Your task to perform on an android device: see sites visited before in the chrome app Image 0: 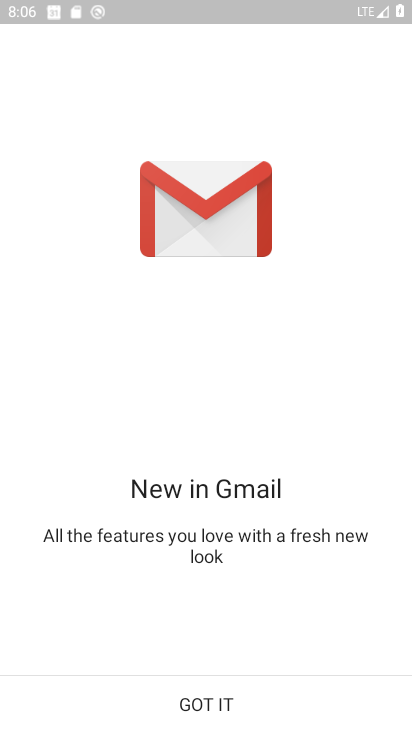
Step 0: press home button
Your task to perform on an android device: see sites visited before in the chrome app Image 1: 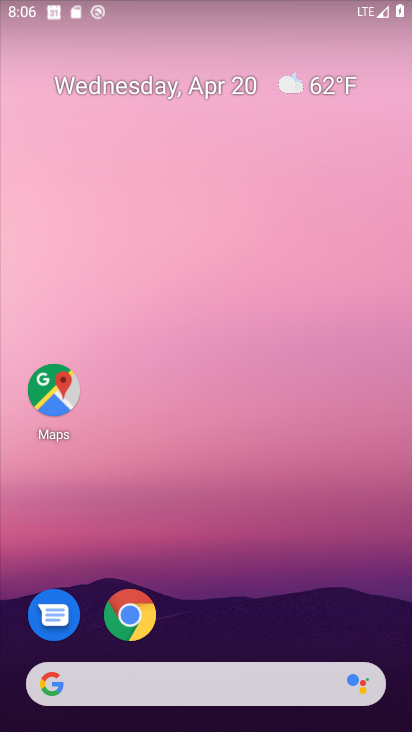
Step 1: click (131, 614)
Your task to perform on an android device: see sites visited before in the chrome app Image 2: 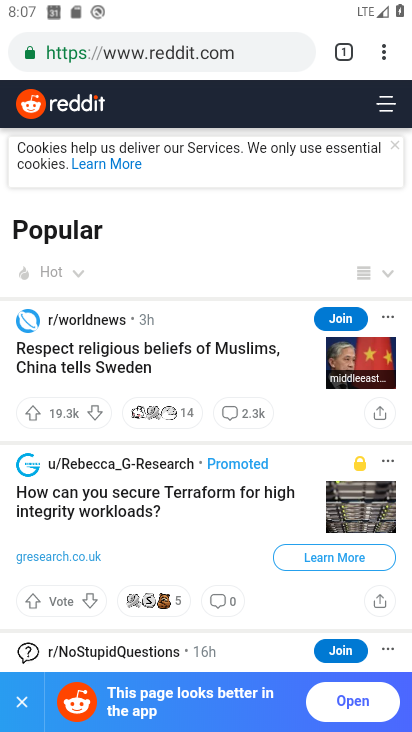
Step 2: click (389, 51)
Your task to perform on an android device: see sites visited before in the chrome app Image 3: 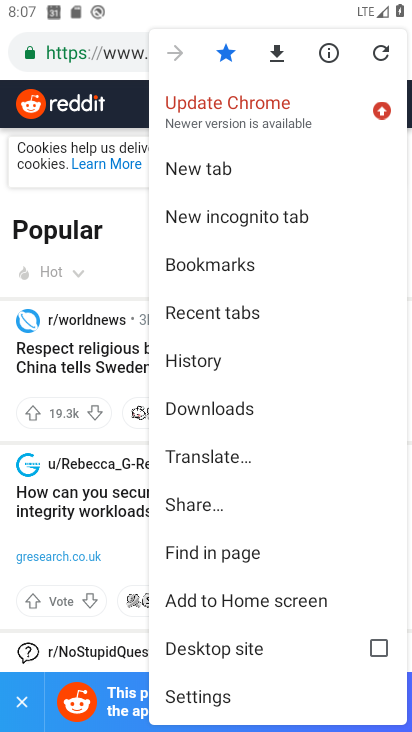
Step 3: click (201, 351)
Your task to perform on an android device: see sites visited before in the chrome app Image 4: 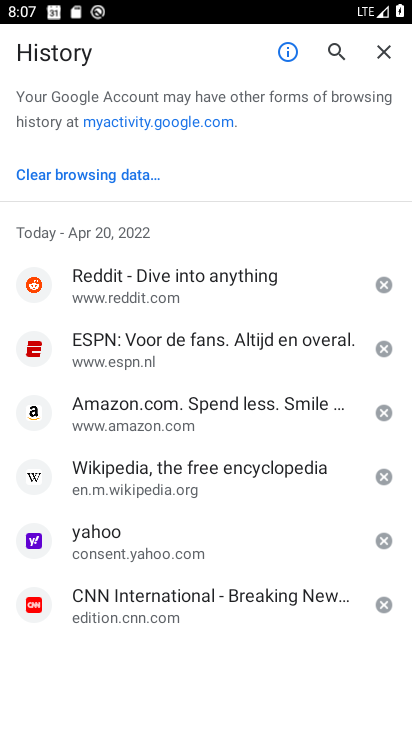
Step 4: task complete